Your task to perform on an android device: Open internet settings Image 0: 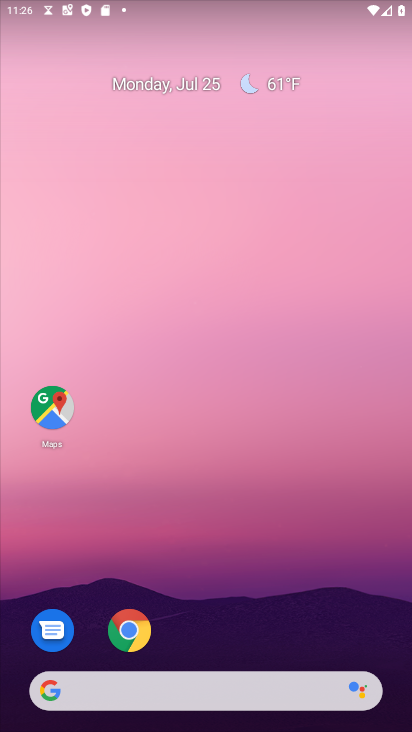
Step 0: drag from (236, 648) to (262, 103)
Your task to perform on an android device: Open internet settings Image 1: 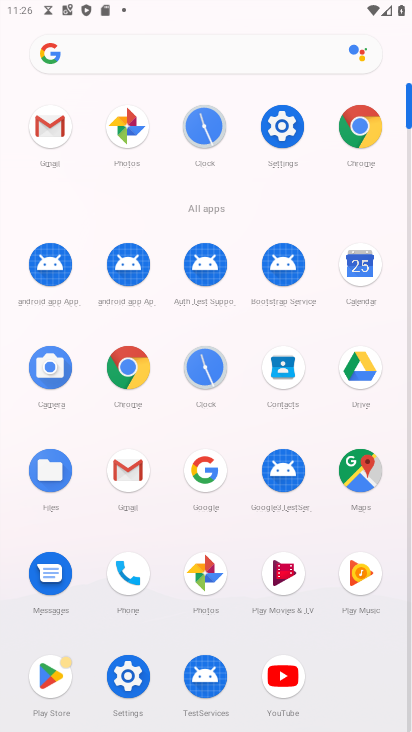
Step 1: click (290, 116)
Your task to perform on an android device: Open internet settings Image 2: 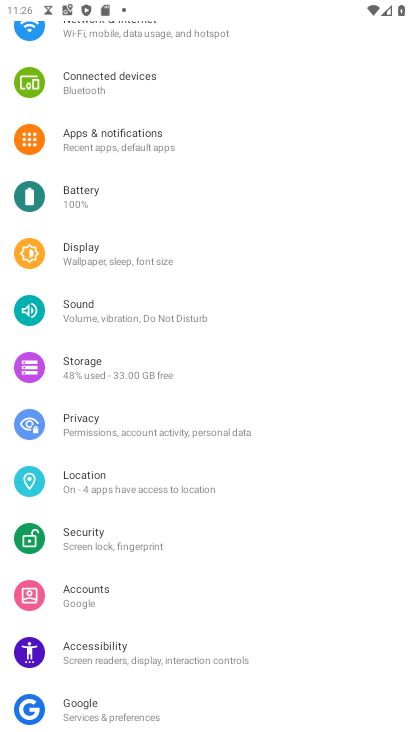
Step 2: click (133, 31)
Your task to perform on an android device: Open internet settings Image 3: 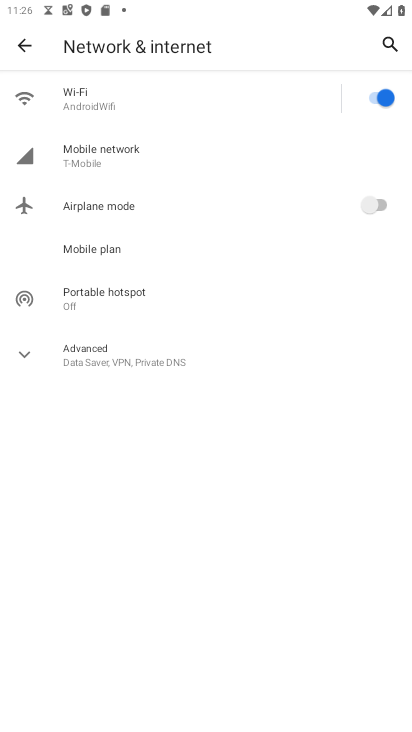
Step 3: click (112, 158)
Your task to perform on an android device: Open internet settings Image 4: 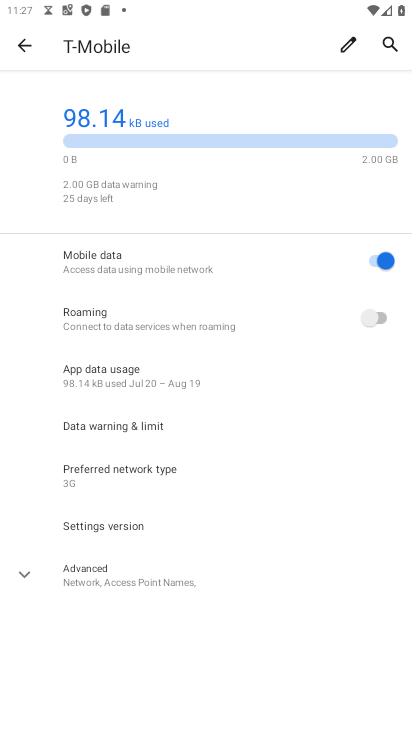
Step 4: task complete